Your task to perform on an android device: see sites visited before in the chrome app Image 0: 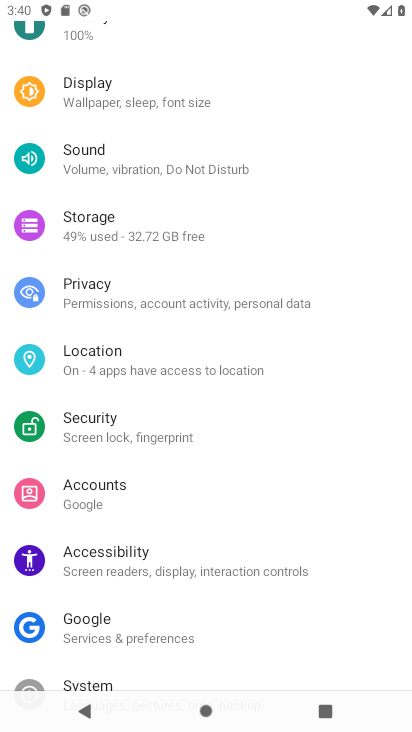
Step 0: press home button
Your task to perform on an android device: see sites visited before in the chrome app Image 1: 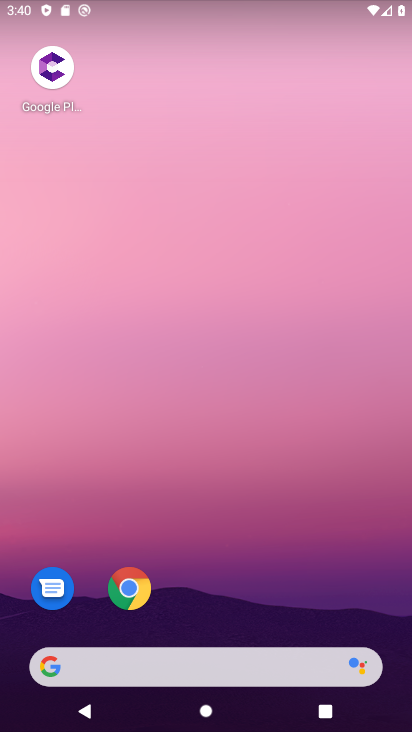
Step 1: click (129, 590)
Your task to perform on an android device: see sites visited before in the chrome app Image 2: 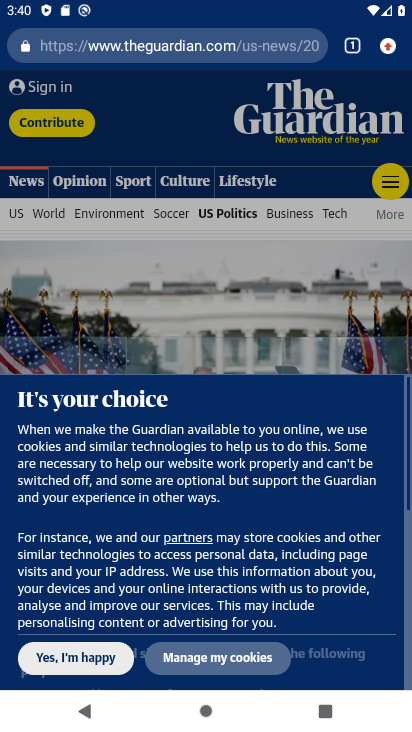
Step 2: click (388, 48)
Your task to perform on an android device: see sites visited before in the chrome app Image 3: 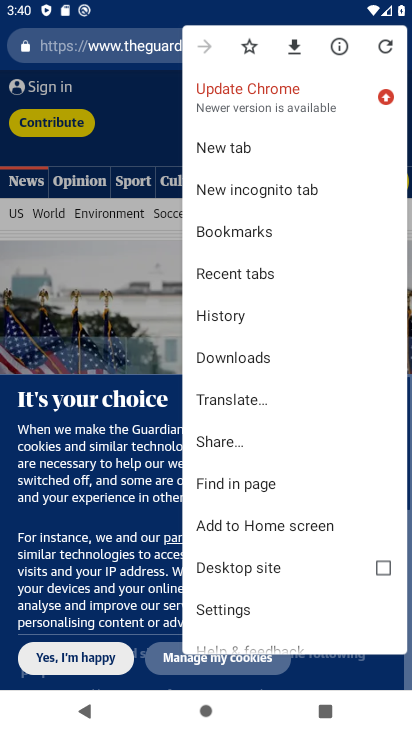
Step 3: click (235, 318)
Your task to perform on an android device: see sites visited before in the chrome app Image 4: 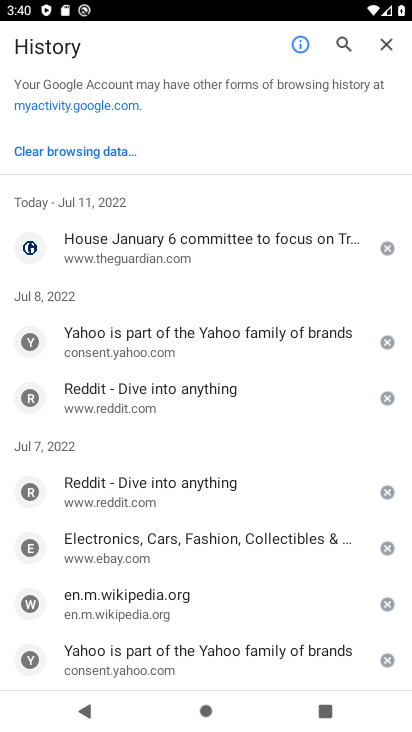
Step 4: task complete